Your task to perform on an android device: Show me popular games on the Play Store Image 0: 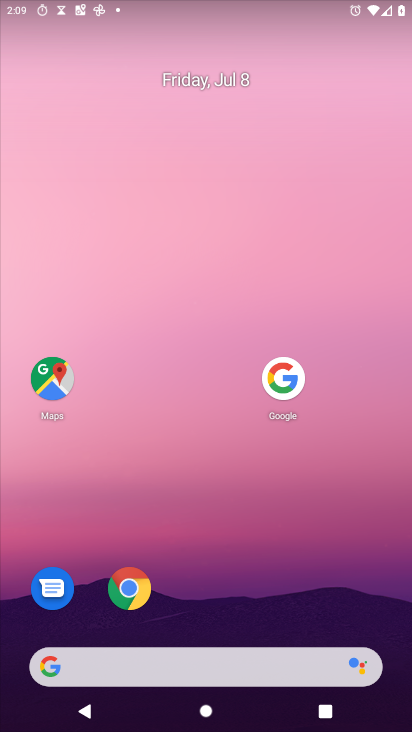
Step 0: drag from (199, 636) to (287, 104)
Your task to perform on an android device: Show me popular games on the Play Store Image 1: 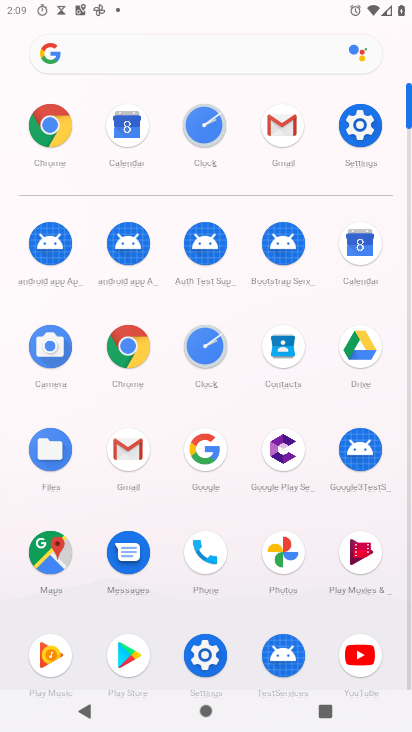
Step 1: click (123, 649)
Your task to perform on an android device: Show me popular games on the Play Store Image 2: 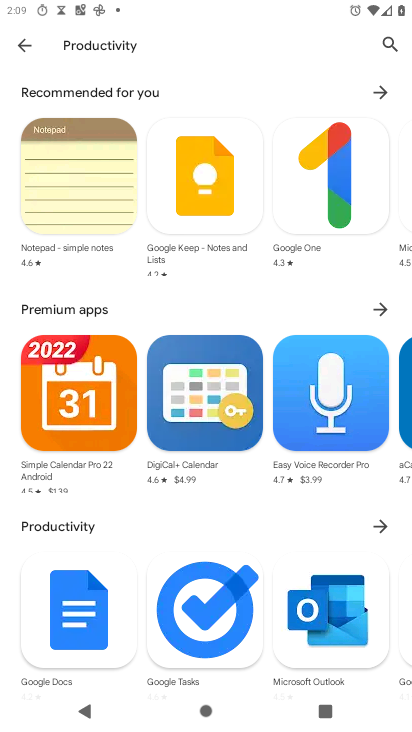
Step 2: click (21, 42)
Your task to perform on an android device: Show me popular games on the Play Store Image 3: 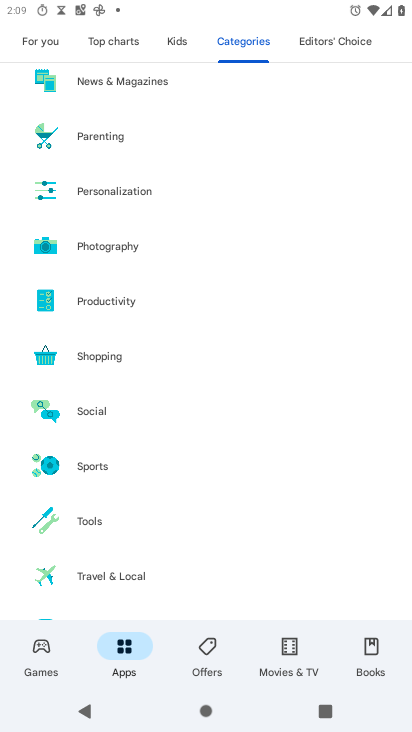
Step 3: click (34, 658)
Your task to perform on an android device: Show me popular games on the Play Store Image 4: 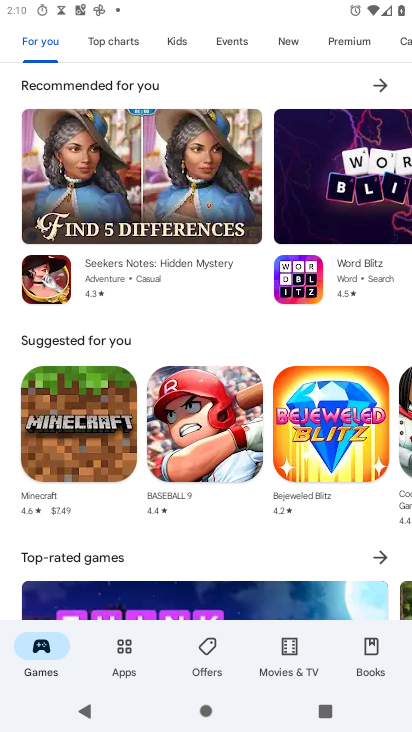
Step 4: drag from (168, 495) to (329, 179)
Your task to perform on an android device: Show me popular games on the Play Store Image 5: 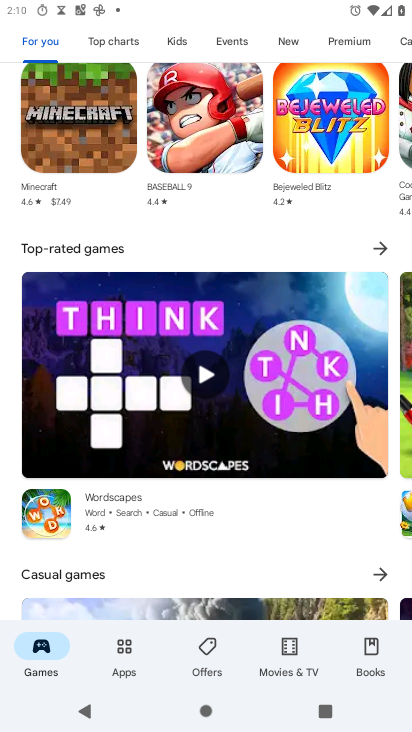
Step 5: click (376, 242)
Your task to perform on an android device: Show me popular games on the Play Store Image 6: 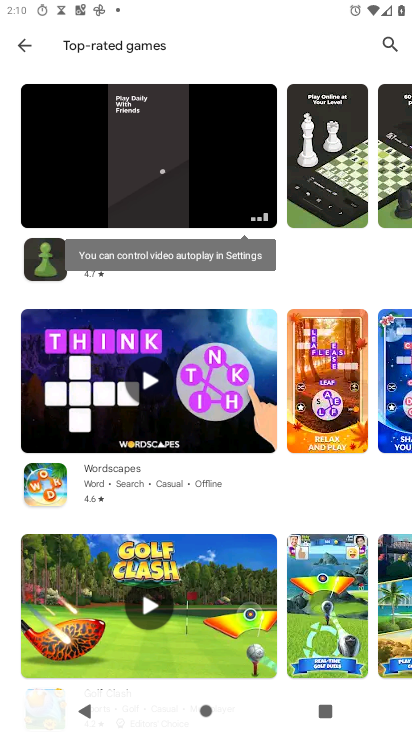
Step 6: task complete